Your task to perform on an android device: Show me recent news Image 0: 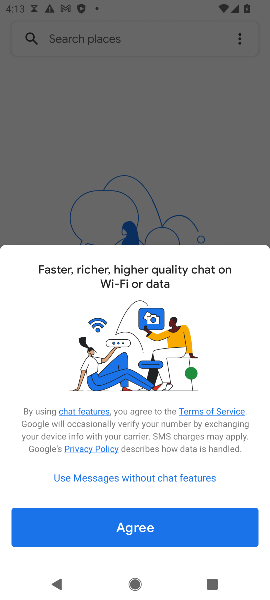
Step 0: press home button
Your task to perform on an android device: Show me recent news Image 1: 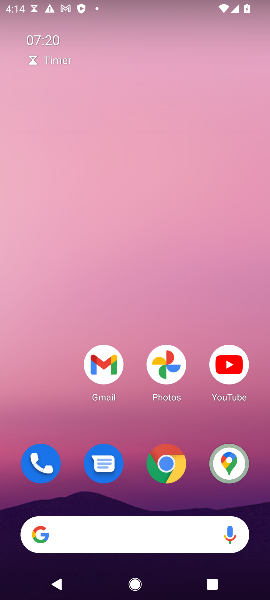
Step 1: drag from (129, 524) to (162, 101)
Your task to perform on an android device: Show me recent news Image 2: 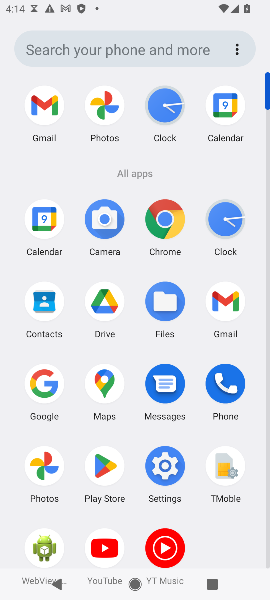
Step 2: click (50, 389)
Your task to perform on an android device: Show me recent news Image 3: 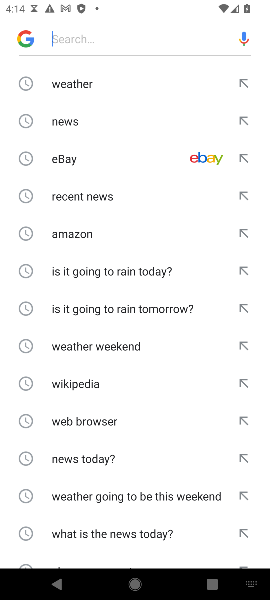
Step 3: click (95, 203)
Your task to perform on an android device: Show me recent news Image 4: 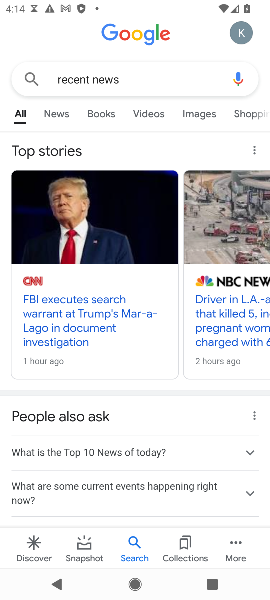
Step 4: task complete